Your task to perform on an android device: Show me popular videos on Youtube Image 0: 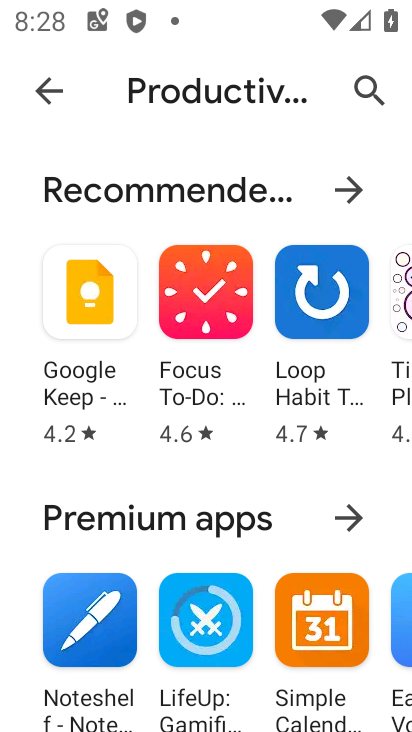
Step 0: press home button
Your task to perform on an android device: Show me popular videos on Youtube Image 1: 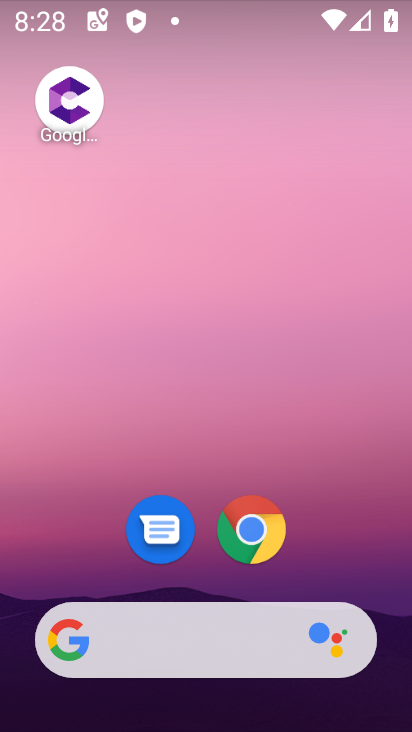
Step 1: drag from (382, 560) to (302, 54)
Your task to perform on an android device: Show me popular videos on Youtube Image 2: 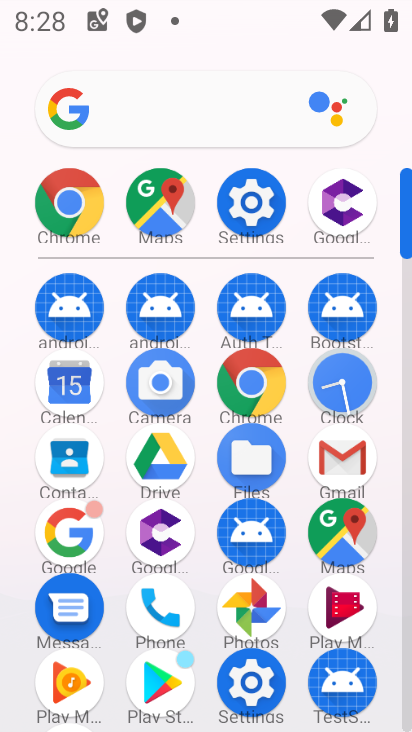
Step 2: drag from (199, 684) to (235, 221)
Your task to perform on an android device: Show me popular videos on Youtube Image 3: 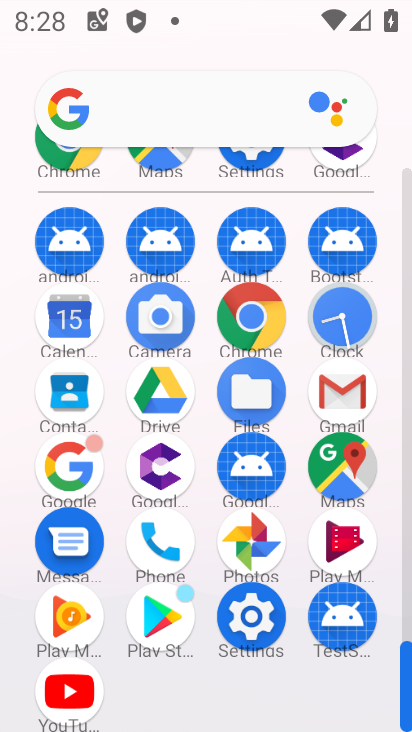
Step 3: click (31, 671)
Your task to perform on an android device: Show me popular videos on Youtube Image 4: 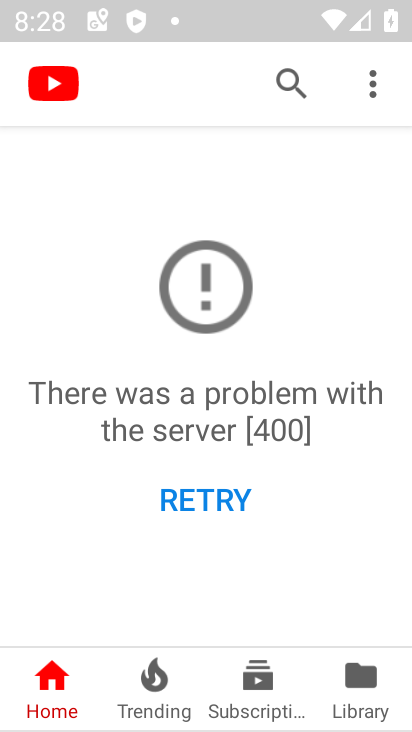
Step 4: click (157, 688)
Your task to perform on an android device: Show me popular videos on Youtube Image 5: 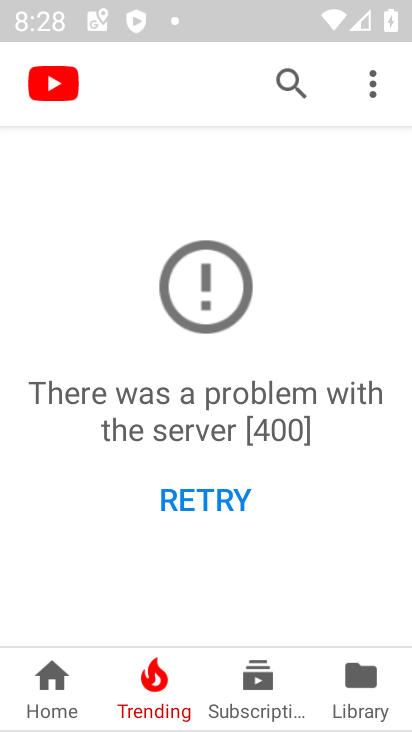
Step 5: task complete